Your task to perform on an android device: Open calendar and show me the second week of next month Image 0: 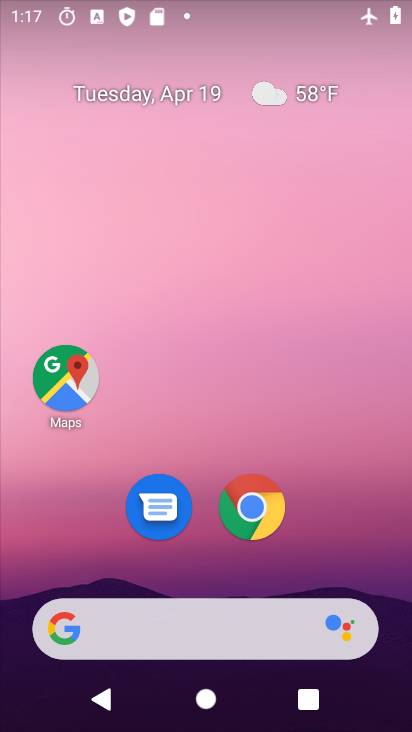
Step 0: drag from (227, 561) to (212, 111)
Your task to perform on an android device: Open calendar and show me the second week of next month Image 1: 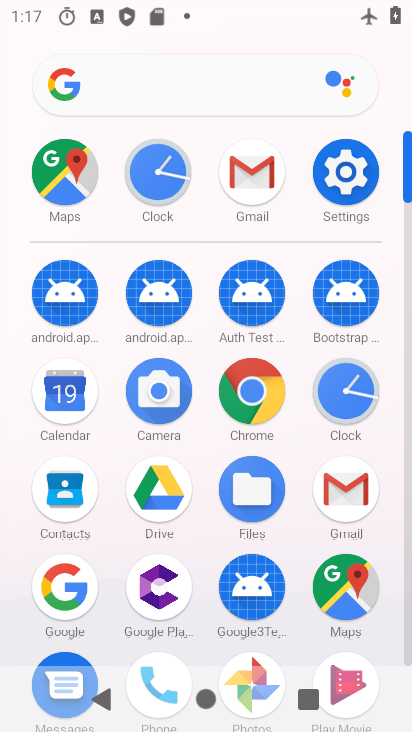
Step 1: click (61, 397)
Your task to perform on an android device: Open calendar and show me the second week of next month Image 2: 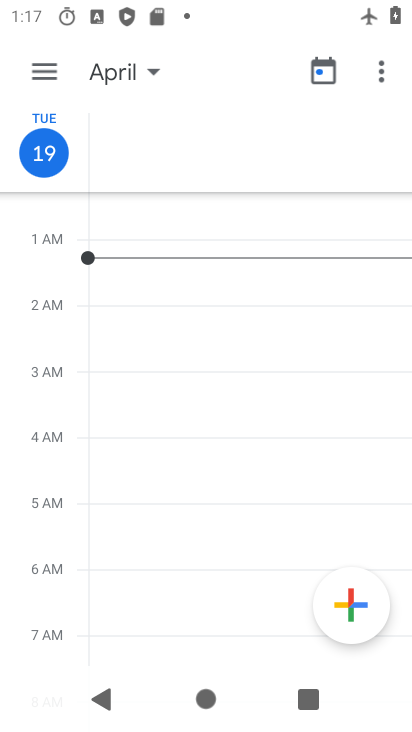
Step 2: click (40, 70)
Your task to perform on an android device: Open calendar and show me the second week of next month Image 3: 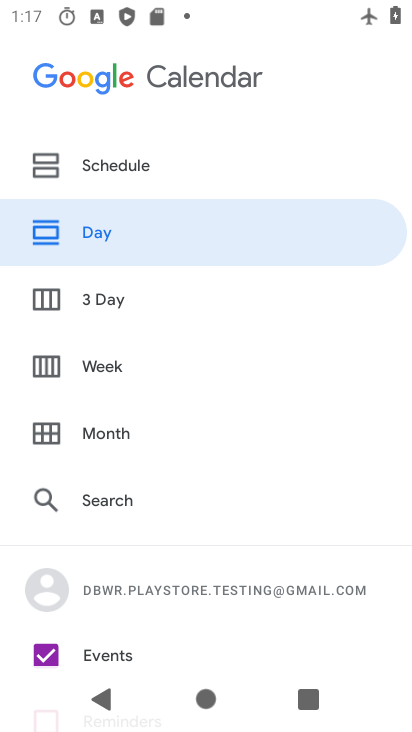
Step 3: click (123, 383)
Your task to perform on an android device: Open calendar and show me the second week of next month Image 4: 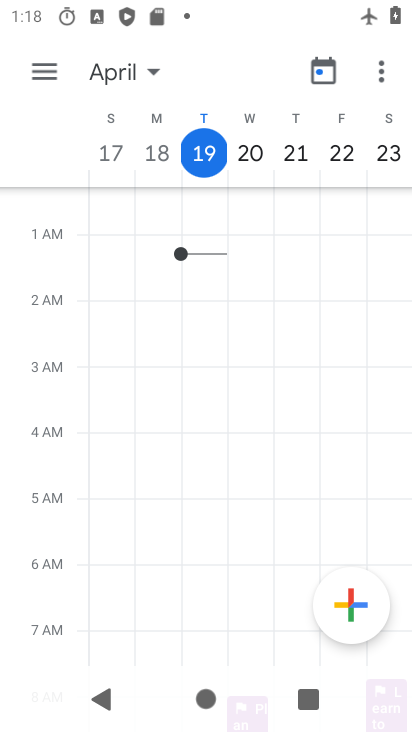
Step 4: click (149, 66)
Your task to perform on an android device: Open calendar and show me the second week of next month Image 5: 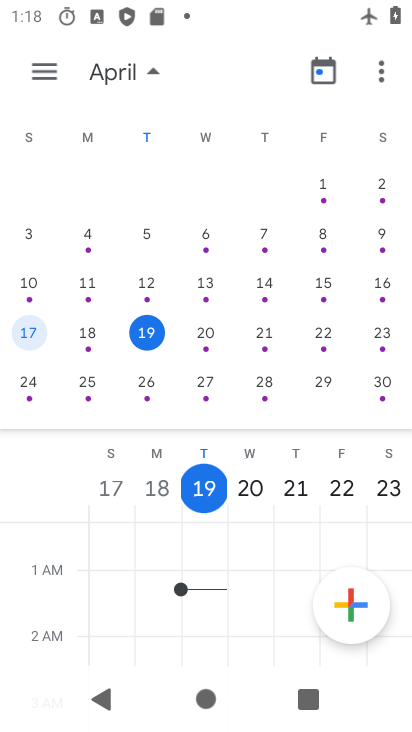
Step 5: drag from (302, 316) to (2, 250)
Your task to perform on an android device: Open calendar and show me the second week of next month Image 6: 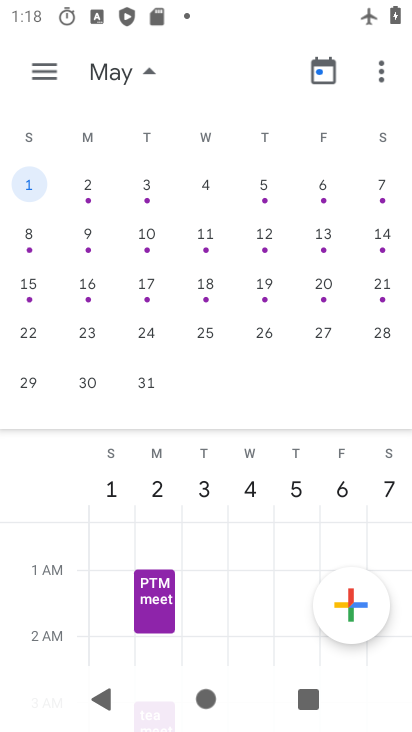
Step 6: click (34, 236)
Your task to perform on an android device: Open calendar and show me the second week of next month Image 7: 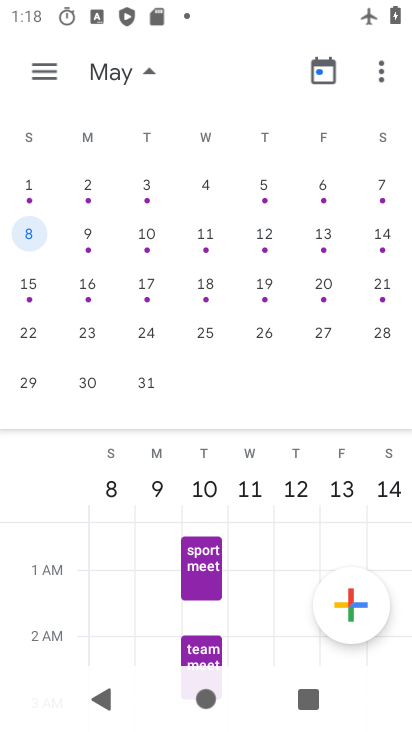
Step 7: task complete